Your task to perform on an android device: open app "DoorDash - Food Delivery" (install if not already installed) Image 0: 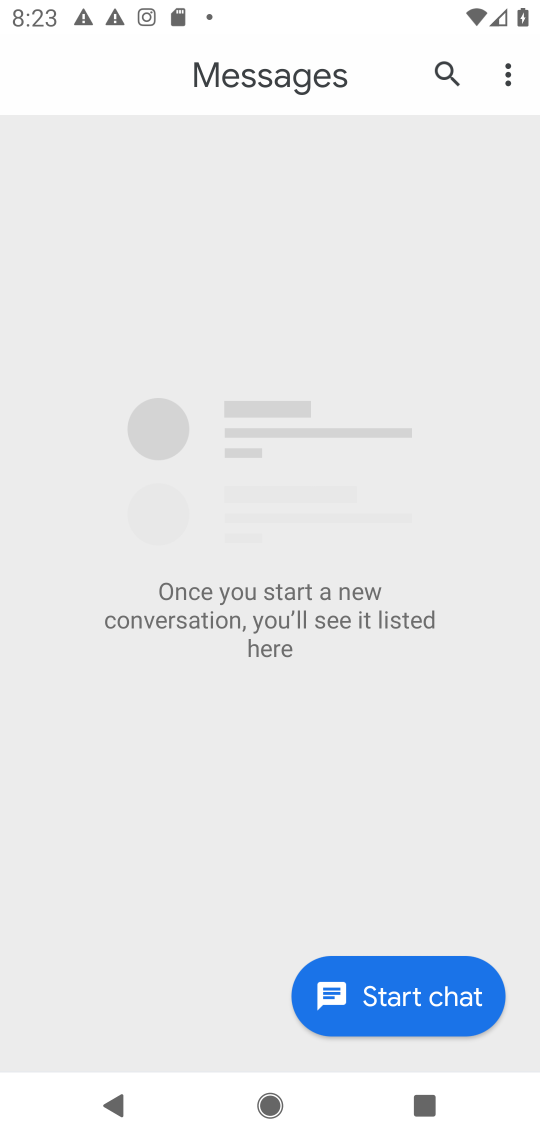
Step 0: press home button
Your task to perform on an android device: open app "DoorDash - Food Delivery" (install if not already installed) Image 1: 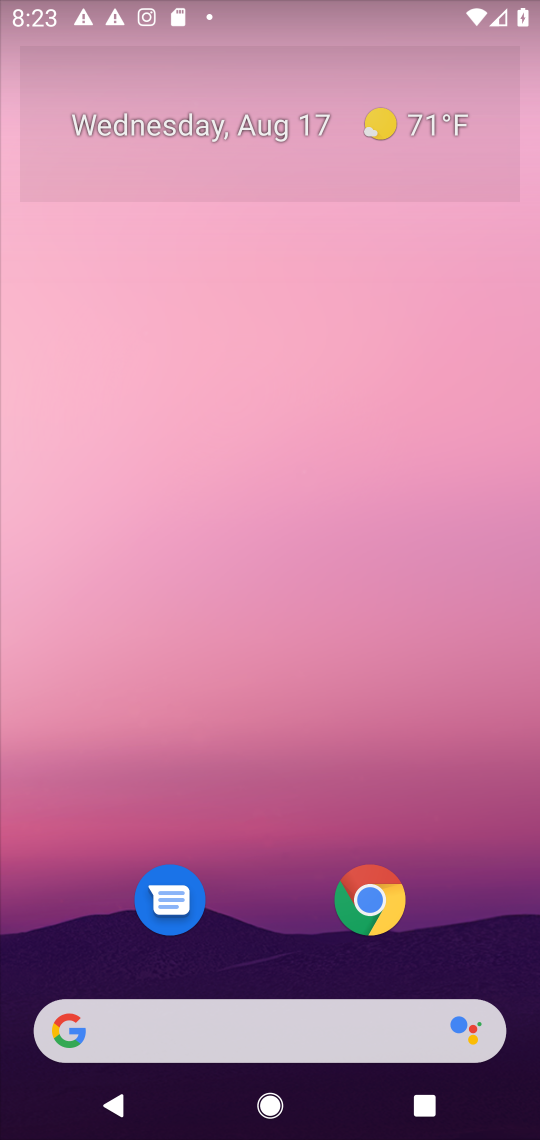
Step 1: drag from (427, 783) to (500, 55)
Your task to perform on an android device: open app "DoorDash - Food Delivery" (install if not already installed) Image 2: 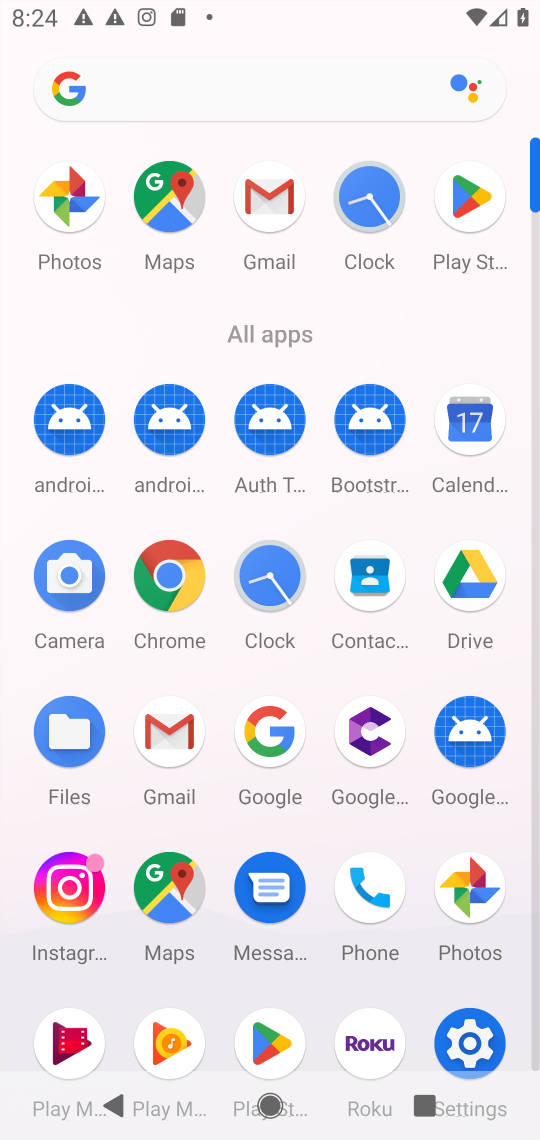
Step 2: click (467, 207)
Your task to perform on an android device: open app "DoorDash - Food Delivery" (install if not already installed) Image 3: 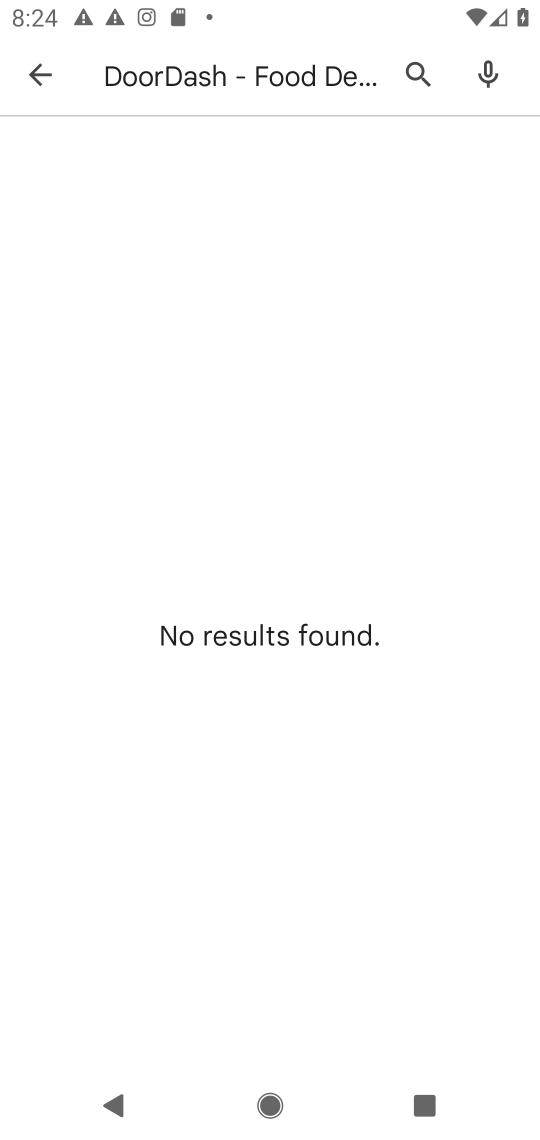
Step 3: click (31, 82)
Your task to perform on an android device: open app "DoorDash - Food Delivery" (install if not already installed) Image 4: 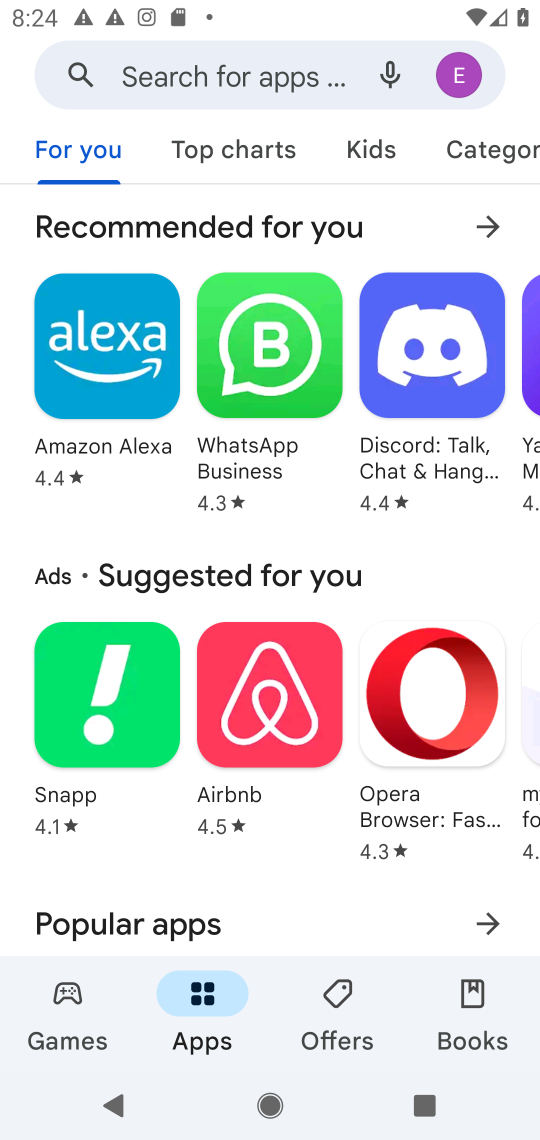
Step 4: click (186, 67)
Your task to perform on an android device: open app "DoorDash - Food Delivery" (install if not already installed) Image 5: 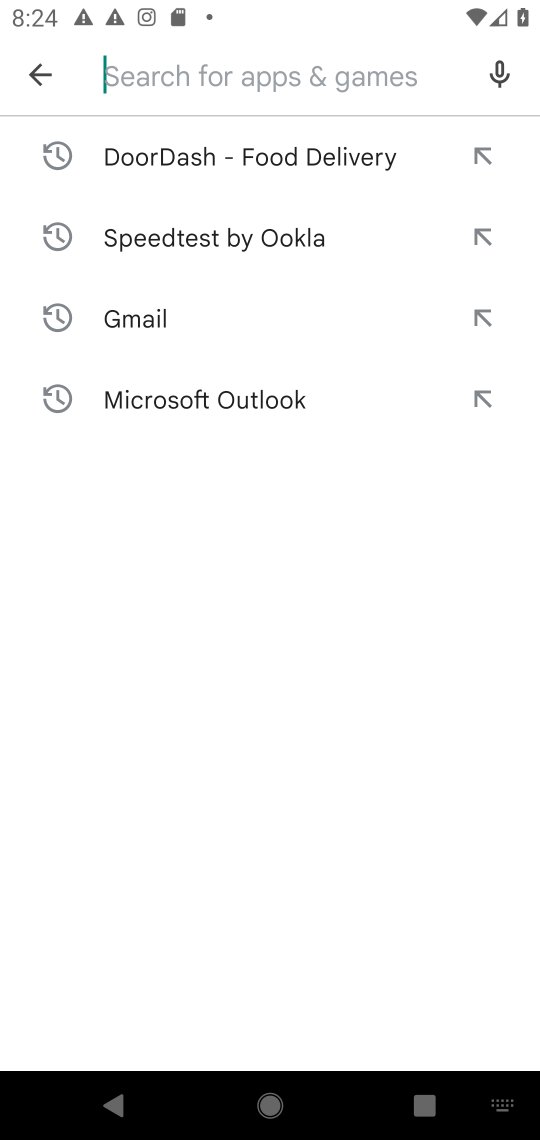
Step 5: click (135, 166)
Your task to perform on an android device: open app "DoorDash - Food Delivery" (install if not already installed) Image 6: 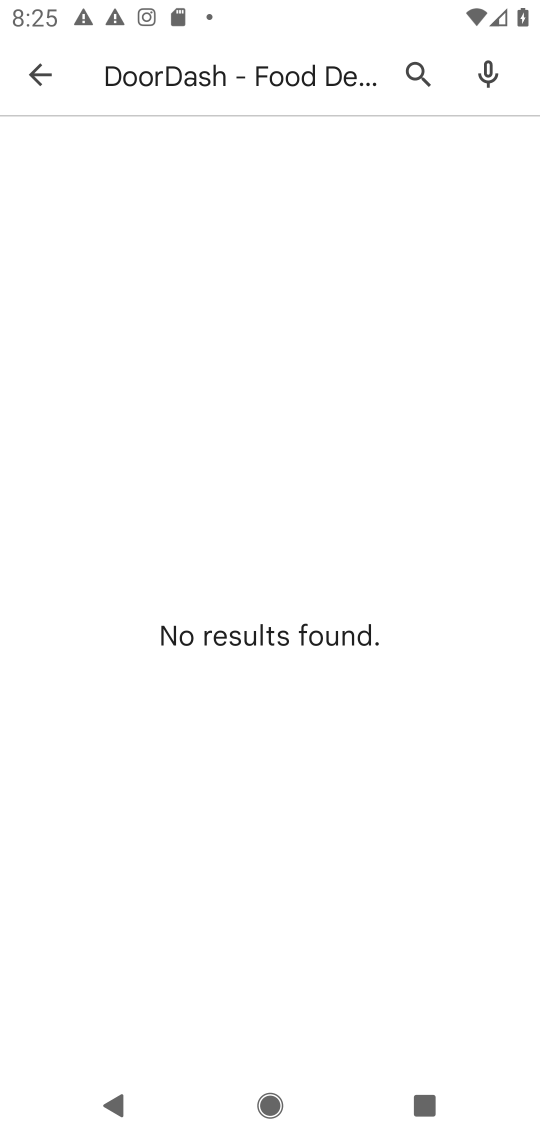
Step 6: task complete